Your task to perform on an android device: turn on location history Image 0: 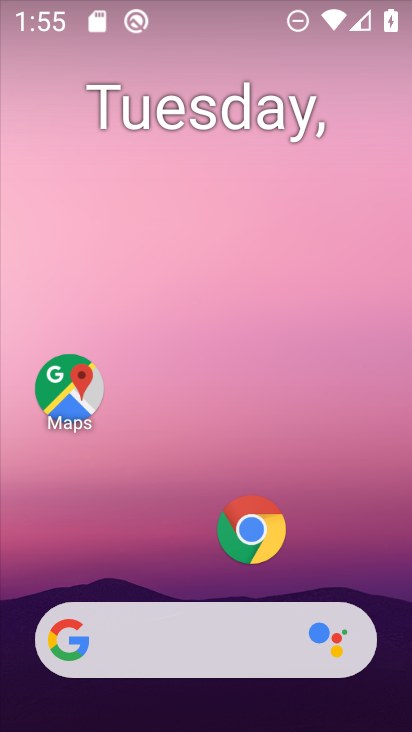
Step 0: press home button
Your task to perform on an android device: turn on location history Image 1: 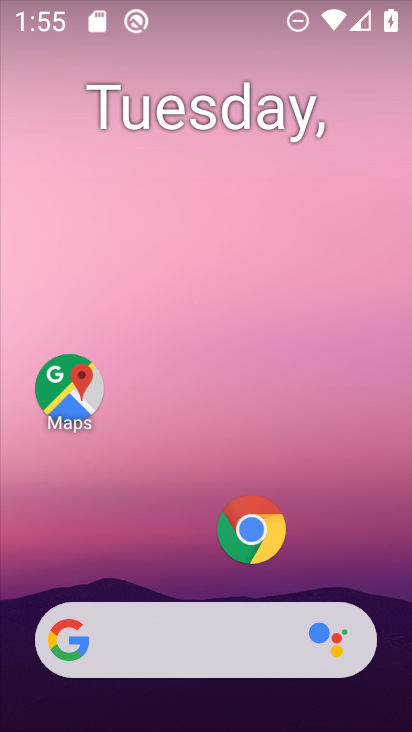
Step 1: drag from (281, 666) to (229, 307)
Your task to perform on an android device: turn on location history Image 2: 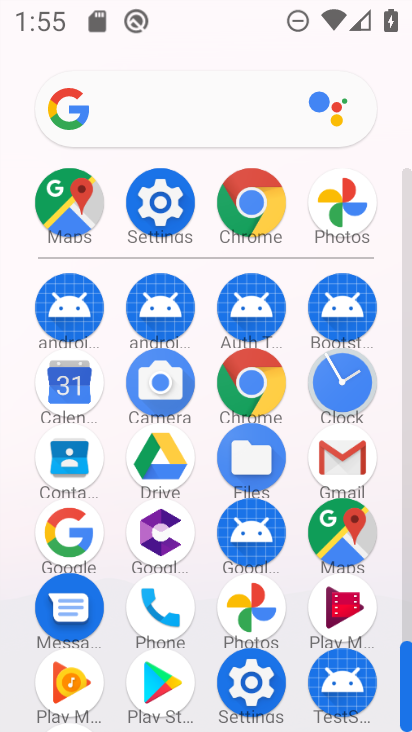
Step 2: click (169, 196)
Your task to perform on an android device: turn on location history Image 3: 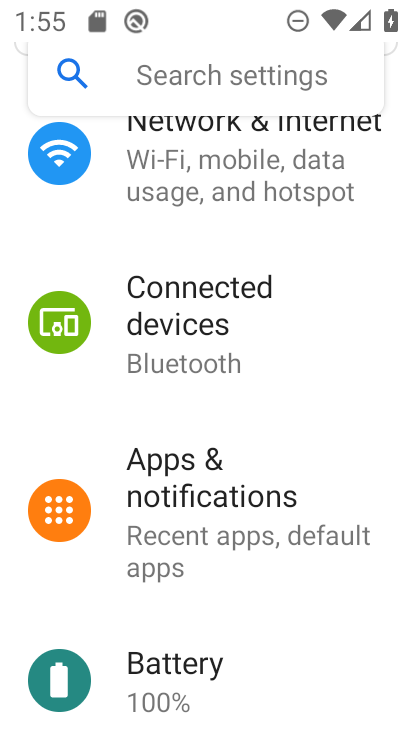
Step 3: click (200, 71)
Your task to perform on an android device: turn on location history Image 4: 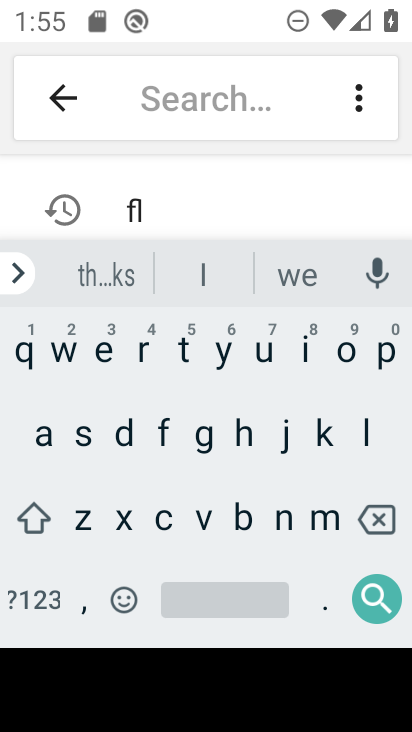
Step 4: click (366, 432)
Your task to perform on an android device: turn on location history Image 5: 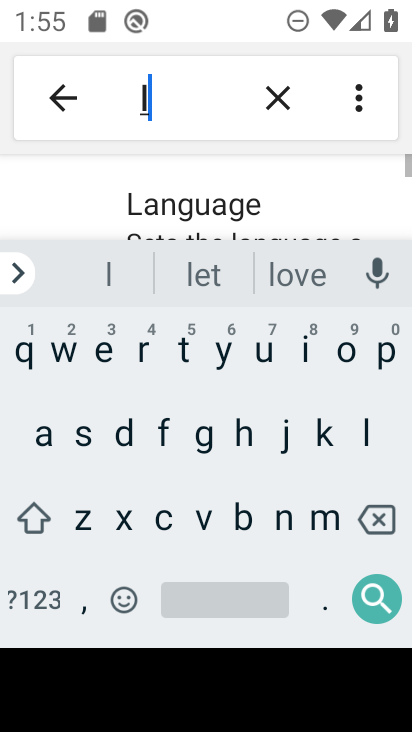
Step 5: click (343, 348)
Your task to perform on an android device: turn on location history Image 6: 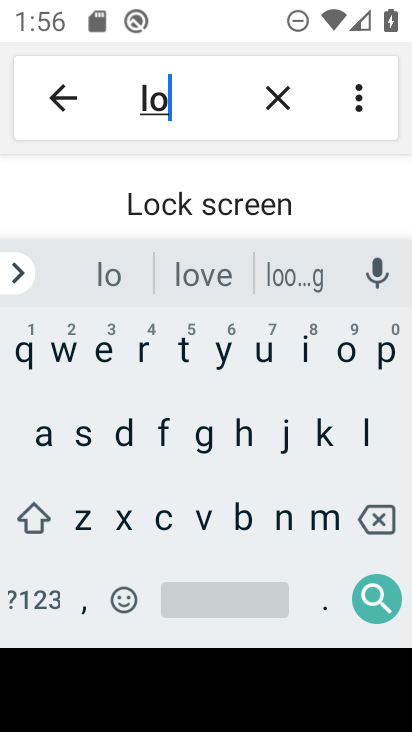
Step 6: press back button
Your task to perform on an android device: turn on location history Image 7: 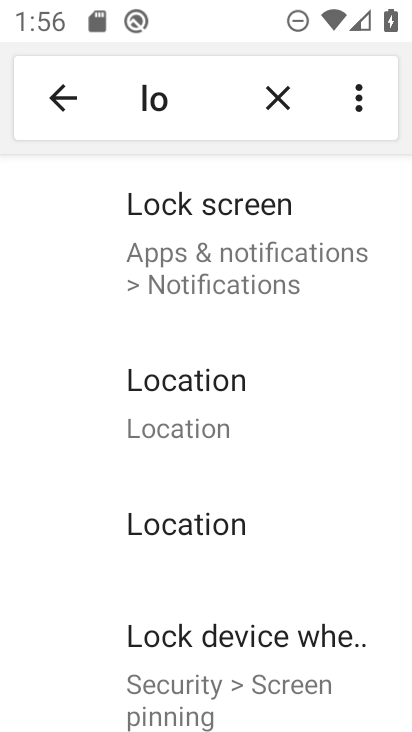
Step 7: click (209, 402)
Your task to perform on an android device: turn on location history Image 8: 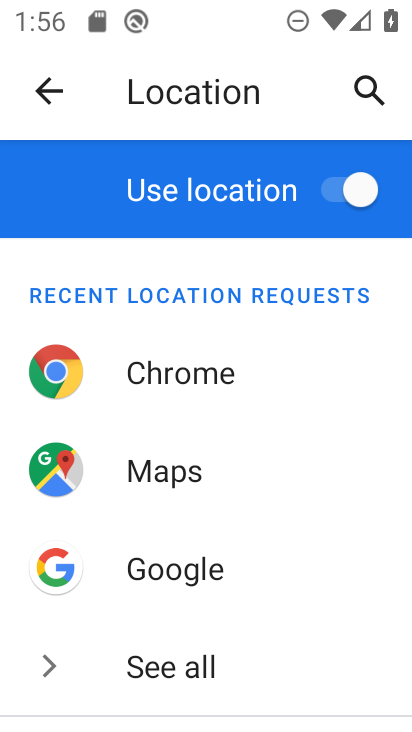
Step 8: drag from (119, 677) to (231, 216)
Your task to perform on an android device: turn on location history Image 9: 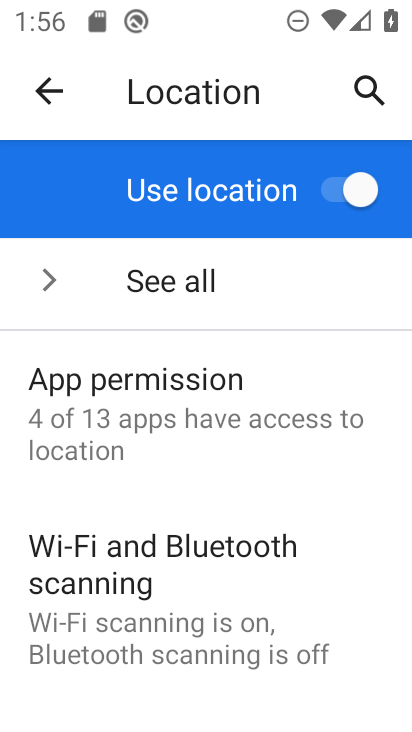
Step 9: drag from (186, 614) to (210, 423)
Your task to perform on an android device: turn on location history Image 10: 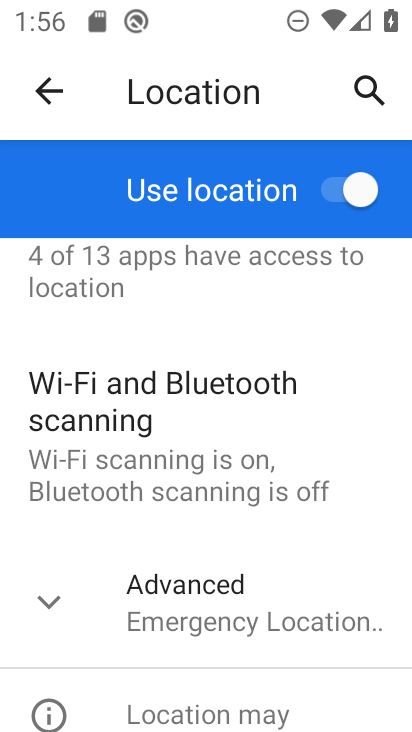
Step 10: click (106, 589)
Your task to perform on an android device: turn on location history Image 11: 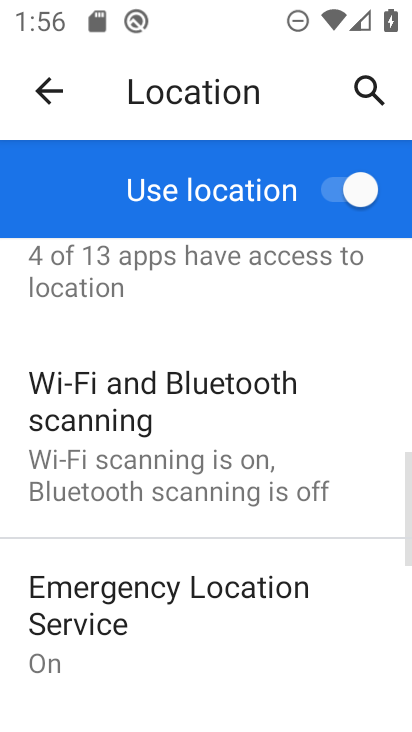
Step 11: drag from (220, 658) to (267, 238)
Your task to perform on an android device: turn on location history Image 12: 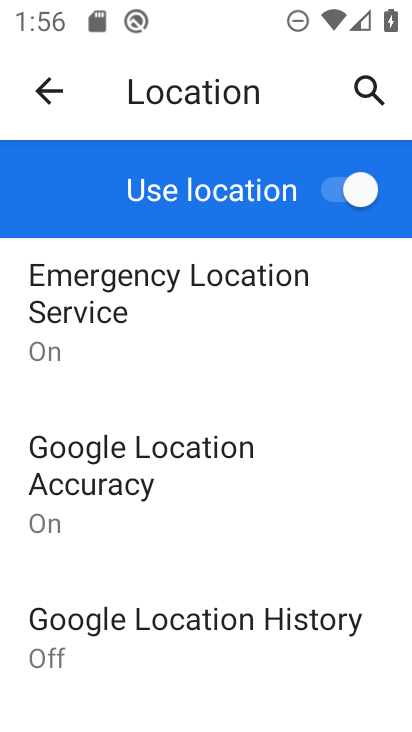
Step 12: click (193, 618)
Your task to perform on an android device: turn on location history Image 13: 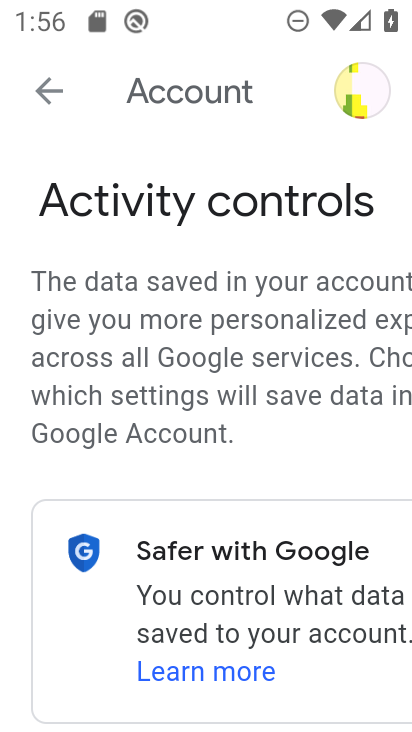
Step 13: task complete